Your task to perform on an android device: toggle data saver in the chrome app Image 0: 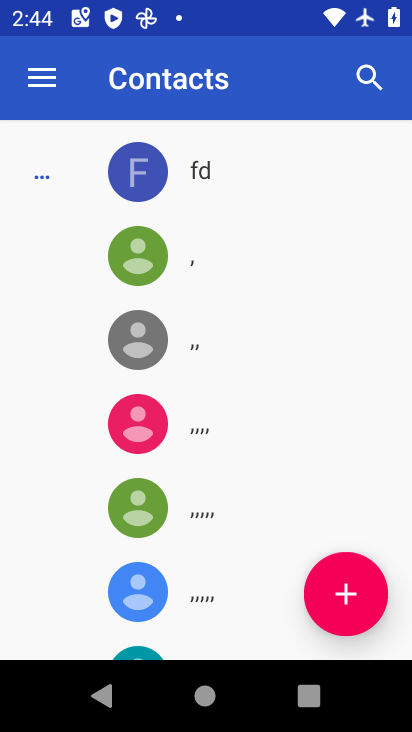
Step 0: press home button
Your task to perform on an android device: toggle data saver in the chrome app Image 1: 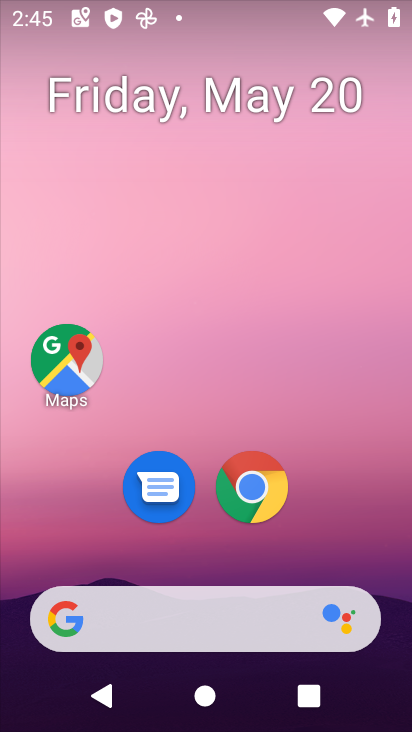
Step 1: drag from (347, 532) to (316, 12)
Your task to perform on an android device: toggle data saver in the chrome app Image 2: 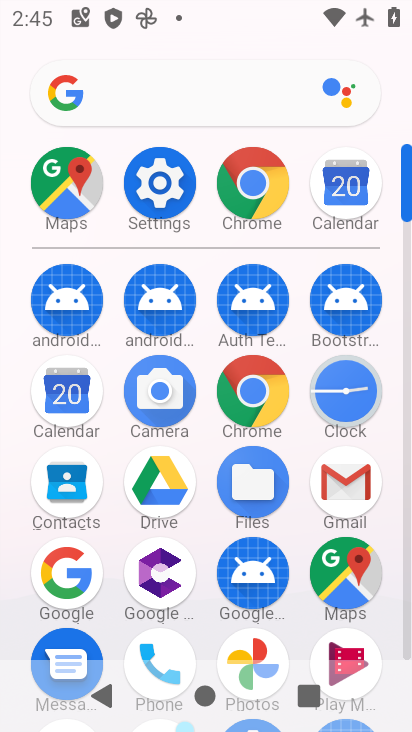
Step 2: click (265, 161)
Your task to perform on an android device: toggle data saver in the chrome app Image 3: 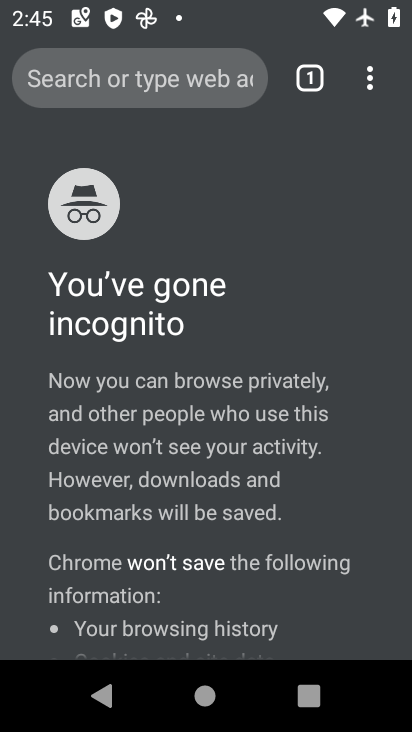
Step 3: drag from (367, 84) to (90, 568)
Your task to perform on an android device: toggle data saver in the chrome app Image 4: 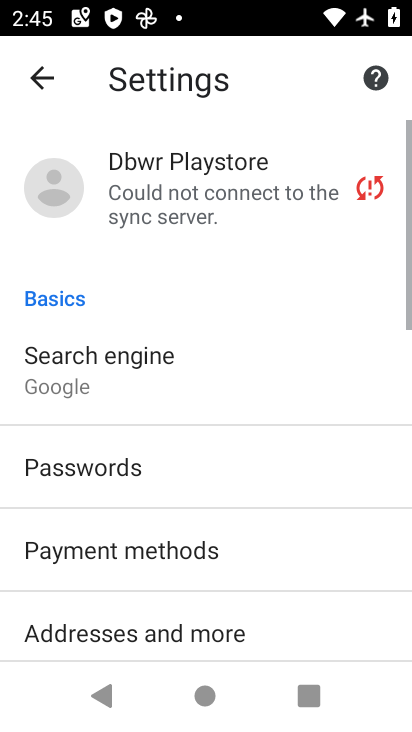
Step 4: drag from (98, 563) to (86, 201)
Your task to perform on an android device: toggle data saver in the chrome app Image 5: 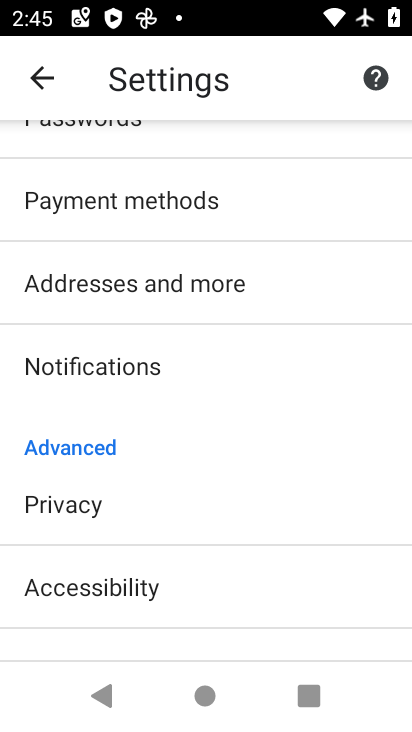
Step 5: drag from (95, 594) to (119, 215)
Your task to perform on an android device: toggle data saver in the chrome app Image 6: 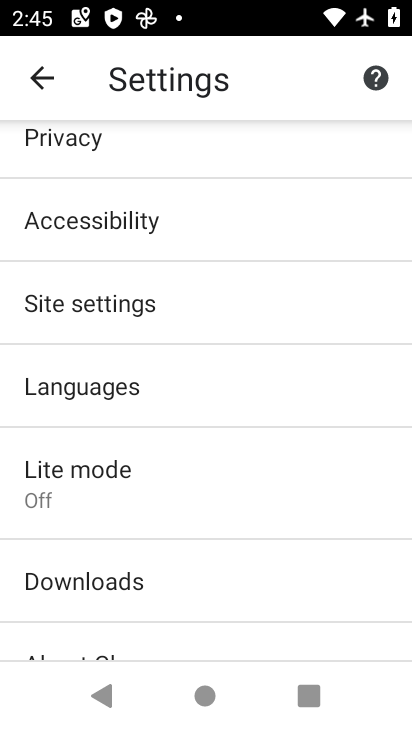
Step 6: click (117, 469)
Your task to perform on an android device: toggle data saver in the chrome app Image 7: 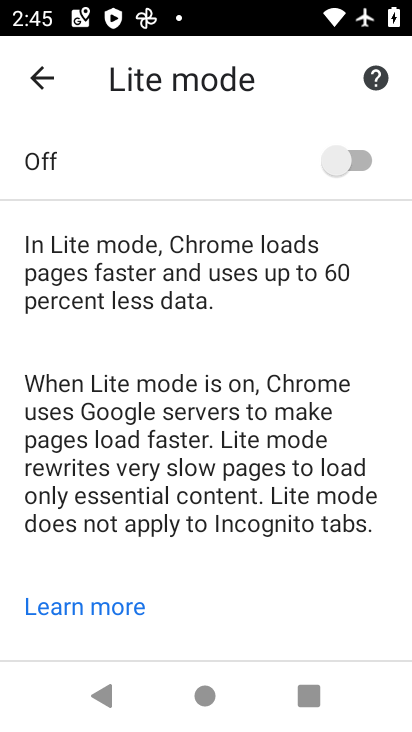
Step 7: drag from (128, 532) to (143, 336)
Your task to perform on an android device: toggle data saver in the chrome app Image 8: 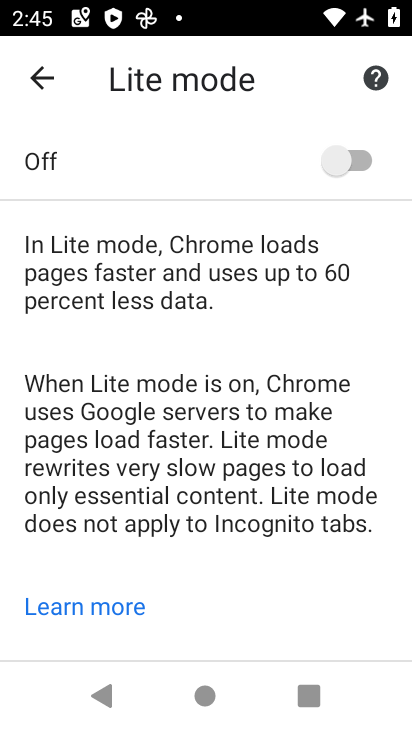
Step 8: click (328, 174)
Your task to perform on an android device: toggle data saver in the chrome app Image 9: 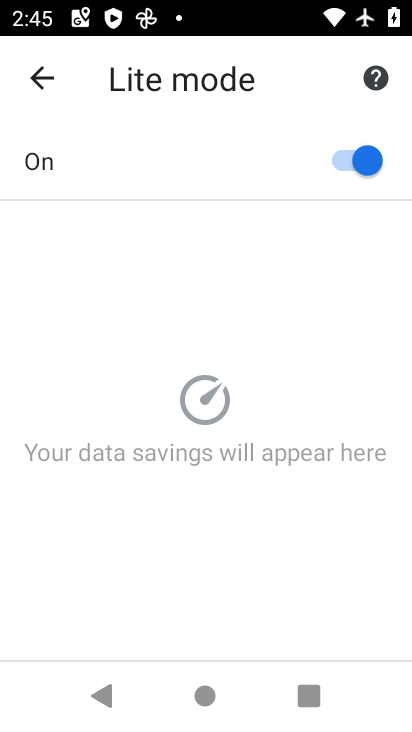
Step 9: task complete